Your task to perform on an android device: choose inbox layout in the gmail app Image 0: 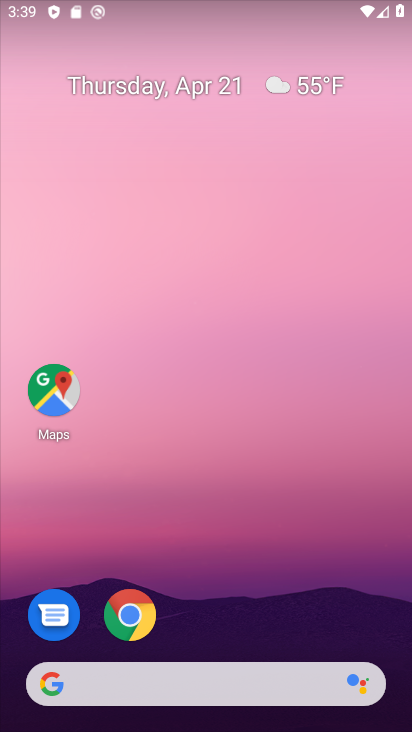
Step 0: drag from (243, 530) to (143, 12)
Your task to perform on an android device: choose inbox layout in the gmail app Image 1: 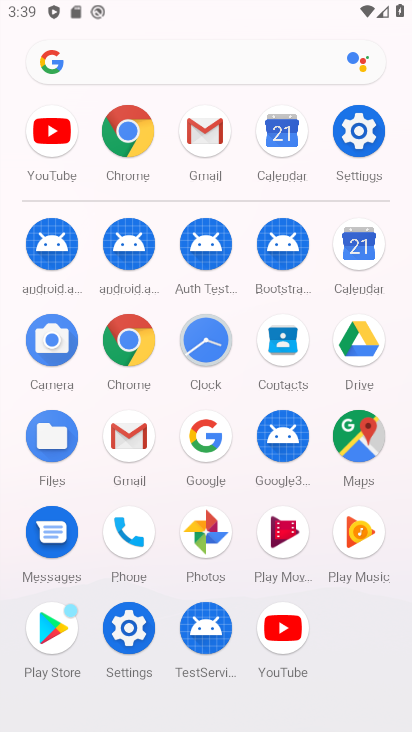
Step 1: click (126, 437)
Your task to perform on an android device: choose inbox layout in the gmail app Image 2: 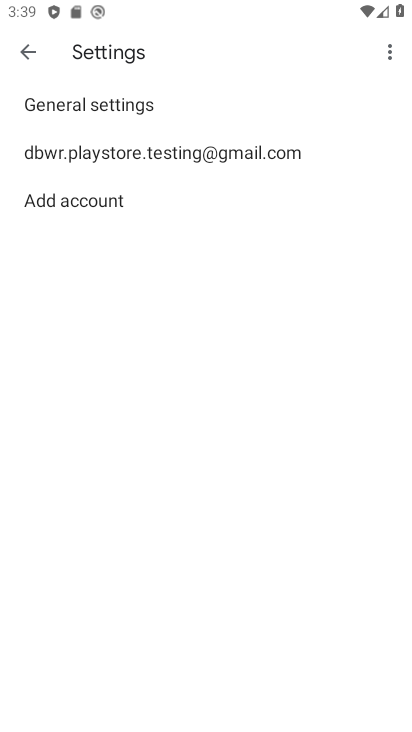
Step 2: click (153, 152)
Your task to perform on an android device: choose inbox layout in the gmail app Image 3: 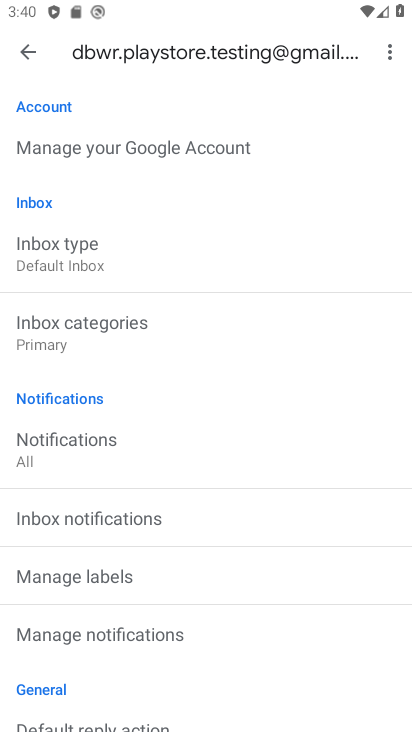
Step 3: click (114, 263)
Your task to perform on an android device: choose inbox layout in the gmail app Image 4: 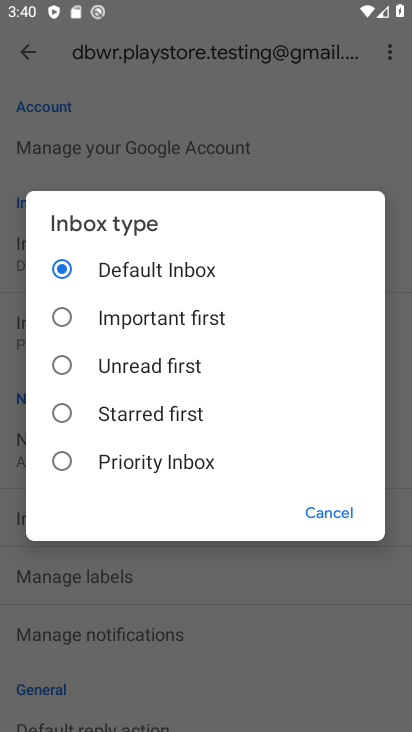
Step 4: click (119, 329)
Your task to perform on an android device: choose inbox layout in the gmail app Image 5: 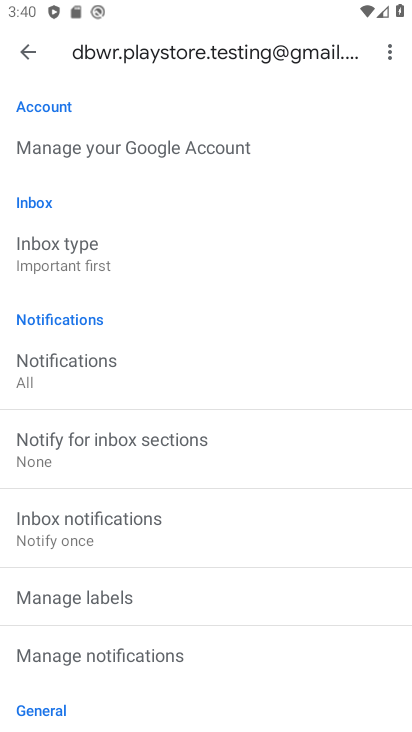
Step 5: task complete